Your task to perform on an android device: Go to CNN.com Image 0: 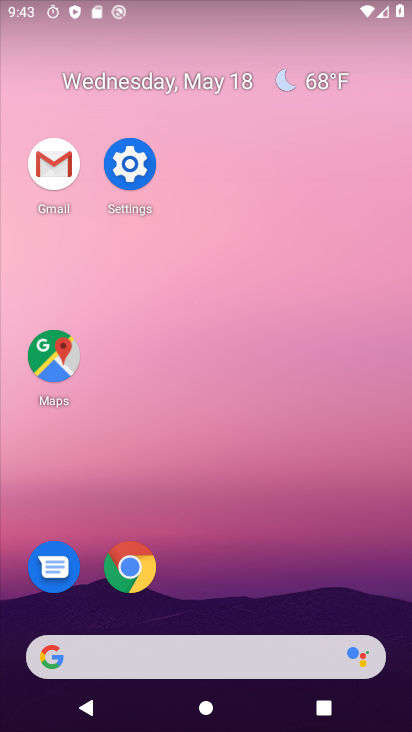
Step 0: click (130, 558)
Your task to perform on an android device: Go to CNN.com Image 1: 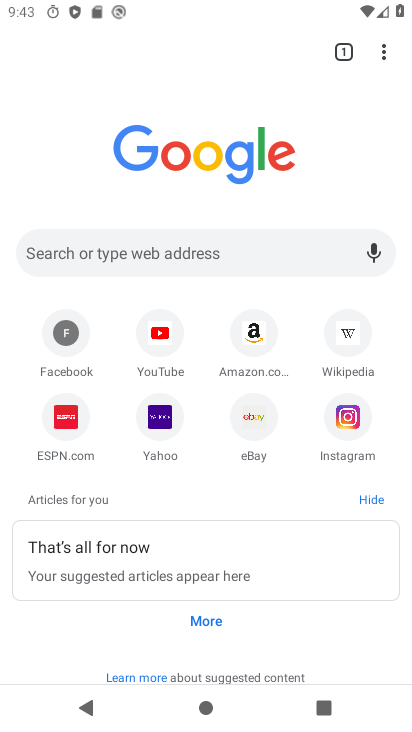
Step 1: click (144, 245)
Your task to perform on an android device: Go to CNN.com Image 2: 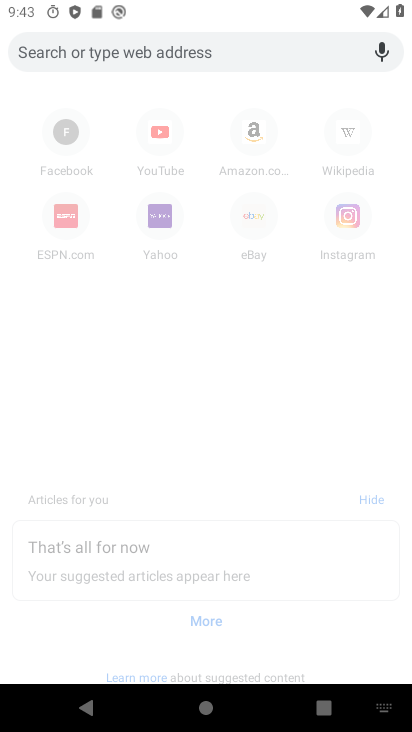
Step 2: type "cnn"
Your task to perform on an android device: Go to CNN.com Image 3: 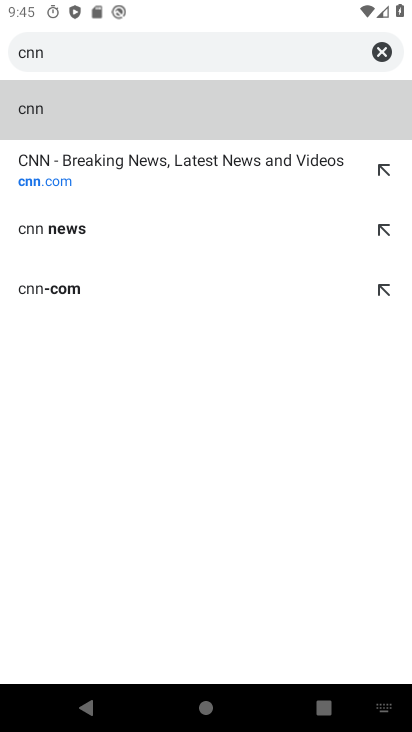
Step 3: click (152, 160)
Your task to perform on an android device: Go to CNN.com Image 4: 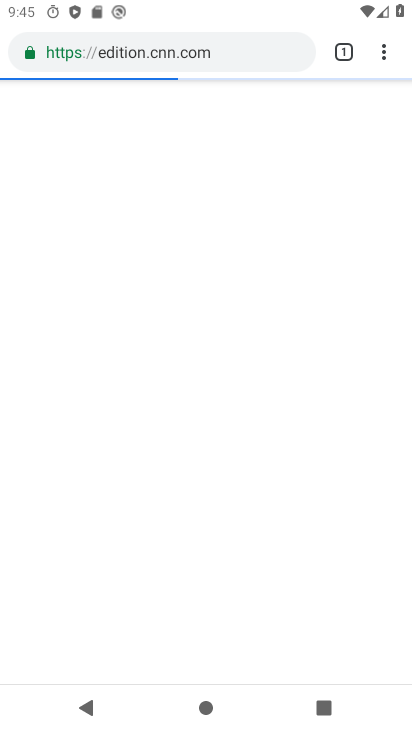
Step 4: task complete